Your task to perform on an android device: Is it going to rain tomorrow? Image 0: 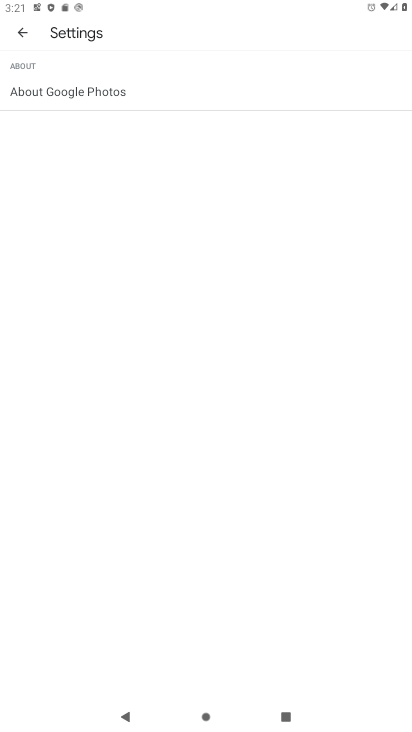
Step 0: press home button
Your task to perform on an android device: Is it going to rain tomorrow? Image 1: 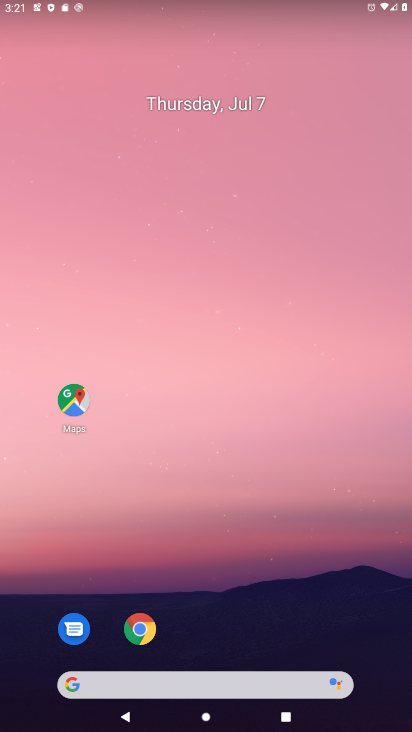
Step 1: click (216, 689)
Your task to perform on an android device: Is it going to rain tomorrow? Image 2: 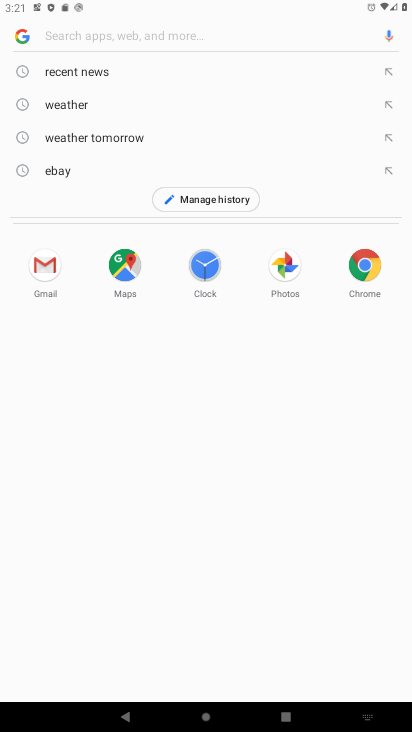
Step 2: click (112, 129)
Your task to perform on an android device: Is it going to rain tomorrow? Image 3: 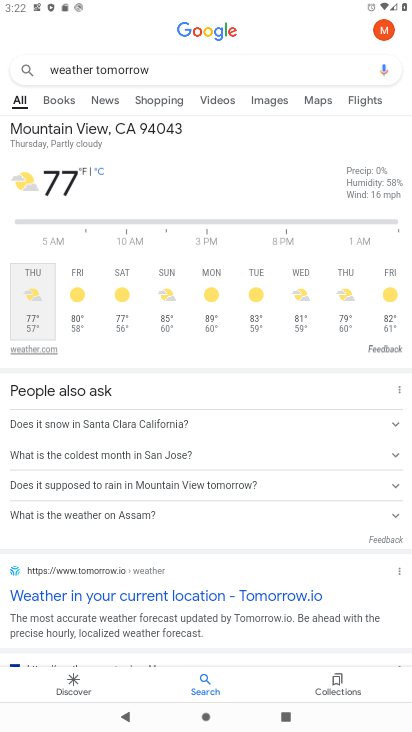
Step 3: task complete